Your task to perform on an android device: Open the phone app and click the voicemail tab. Image 0: 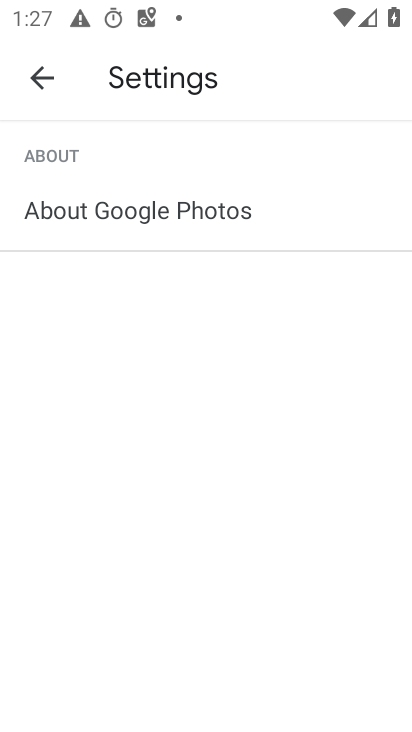
Step 0: press home button
Your task to perform on an android device: Open the phone app and click the voicemail tab. Image 1: 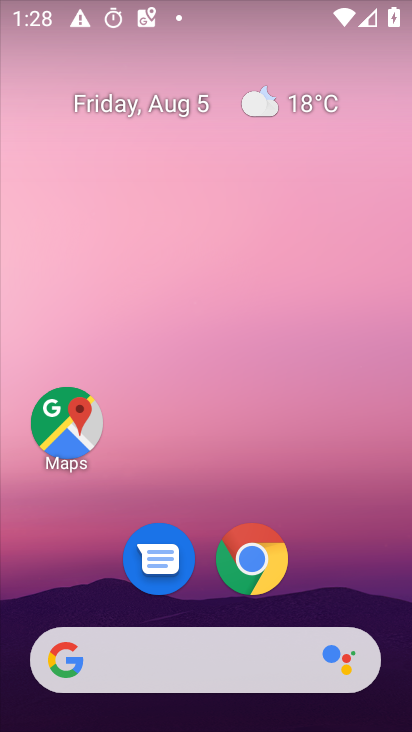
Step 1: drag from (63, 720) to (237, 111)
Your task to perform on an android device: Open the phone app and click the voicemail tab. Image 2: 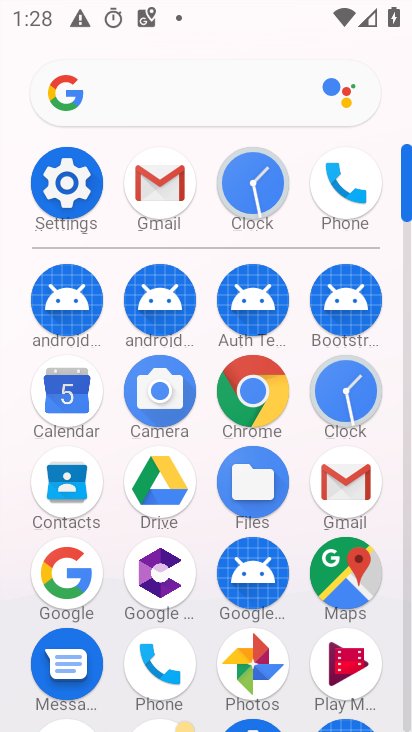
Step 2: click (363, 170)
Your task to perform on an android device: Open the phone app and click the voicemail tab. Image 3: 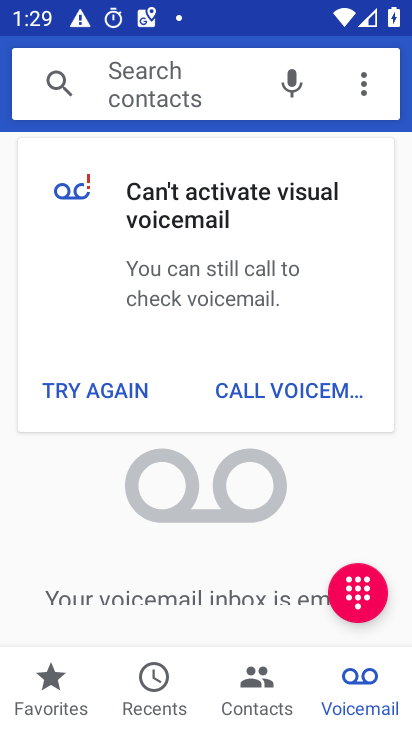
Step 3: task complete